Your task to perform on an android device: Go to accessibility settings Image 0: 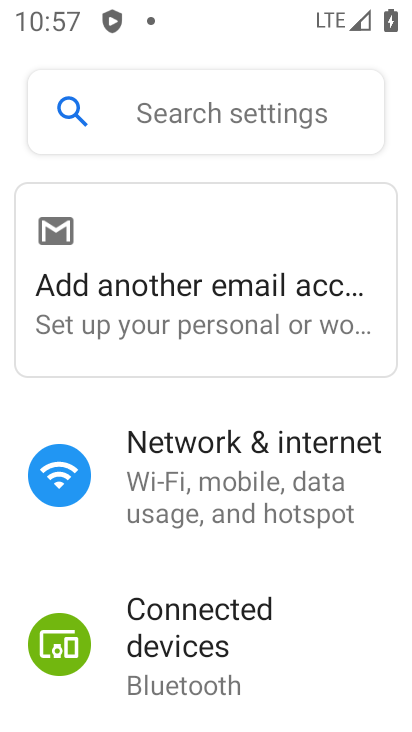
Step 0: drag from (192, 584) to (287, 74)
Your task to perform on an android device: Go to accessibility settings Image 1: 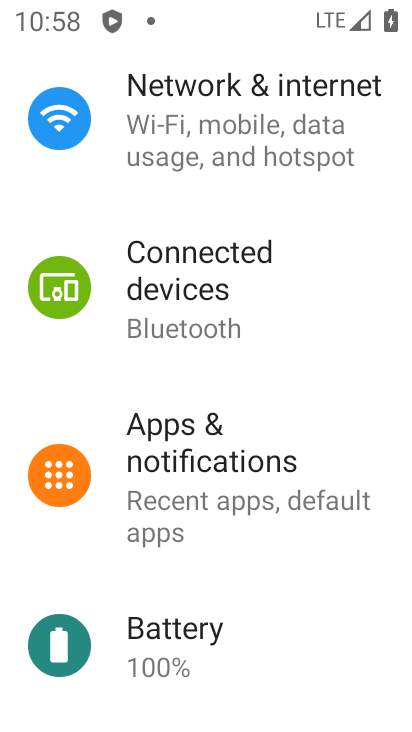
Step 1: drag from (153, 723) to (267, 170)
Your task to perform on an android device: Go to accessibility settings Image 2: 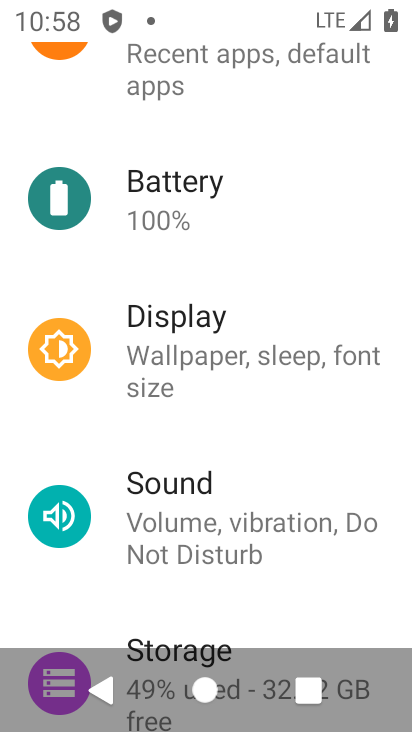
Step 2: drag from (227, 572) to (304, 198)
Your task to perform on an android device: Go to accessibility settings Image 3: 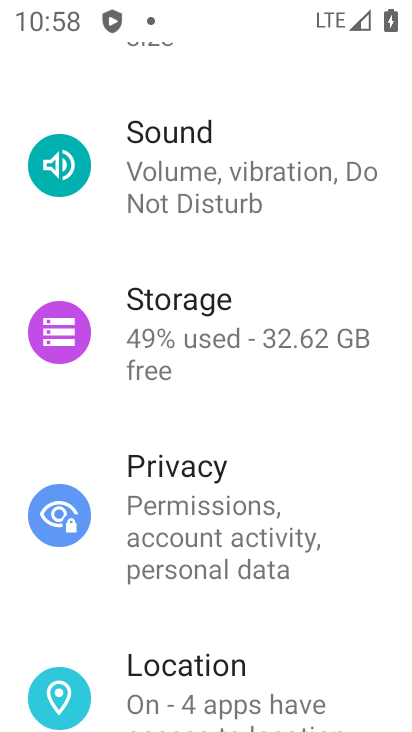
Step 3: drag from (229, 646) to (290, 247)
Your task to perform on an android device: Go to accessibility settings Image 4: 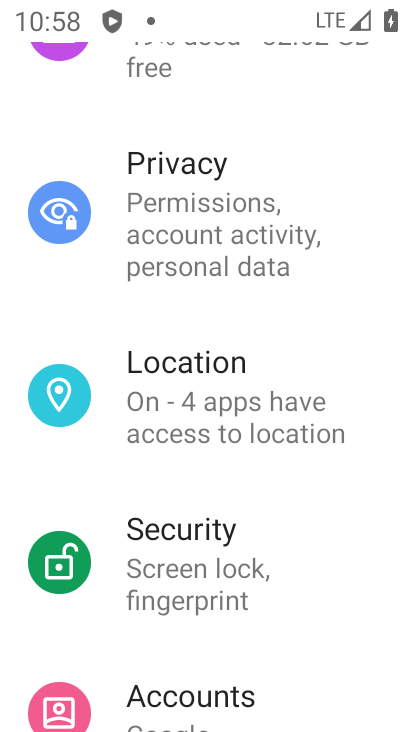
Step 4: drag from (219, 610) to (320, 195)
Your task to perform on an android device: Go to accessibility settings Image 5: 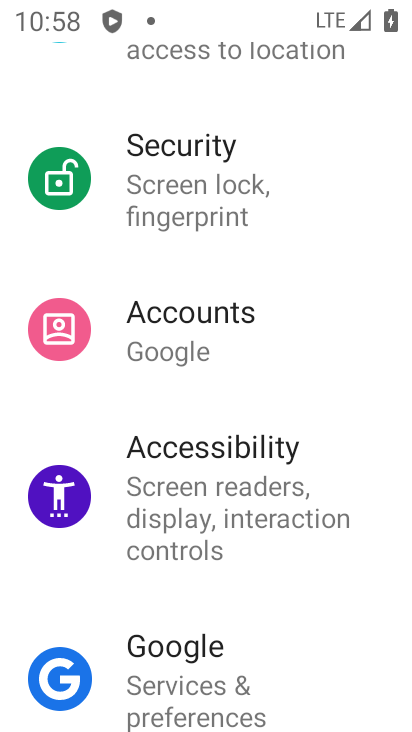
Step 5: click (258, 454)
Your task to perform on an android device: Go to accessibility settings Image 6: 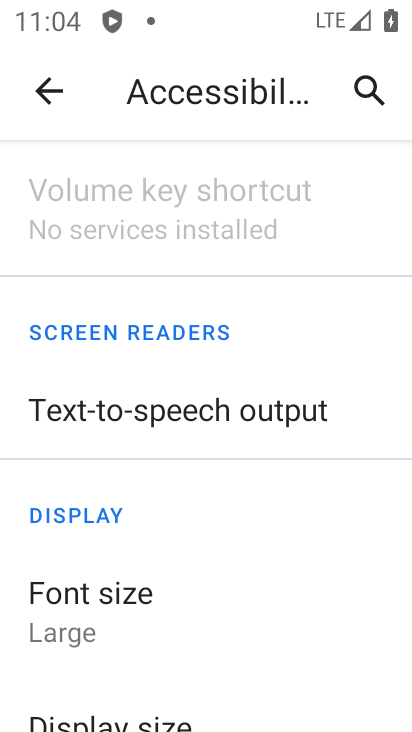
Step 6: task complete